Your task to perform on an android device: Open calendar and show me the third week of next month Image 0: 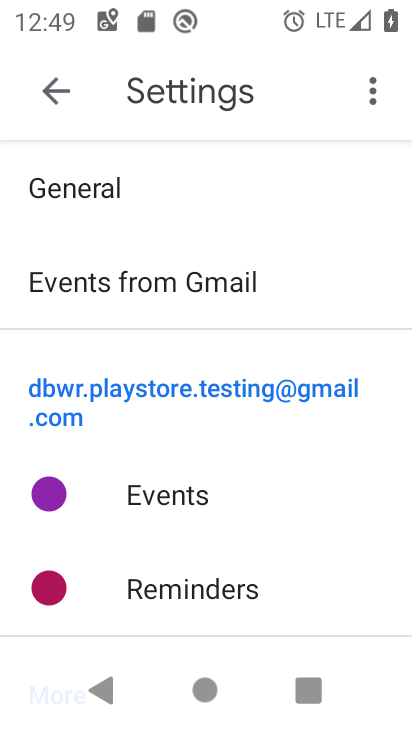
Step 0: type ""
Your task to perform on an android device: Open calendar and show me the third week of next month Image 1: 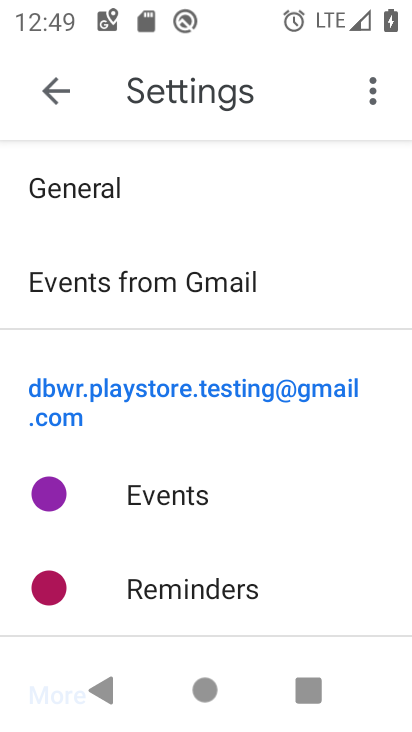
Step 1: press home button
Your task to perform on an android device: Open calendar and show me the third week of next month Image 2: 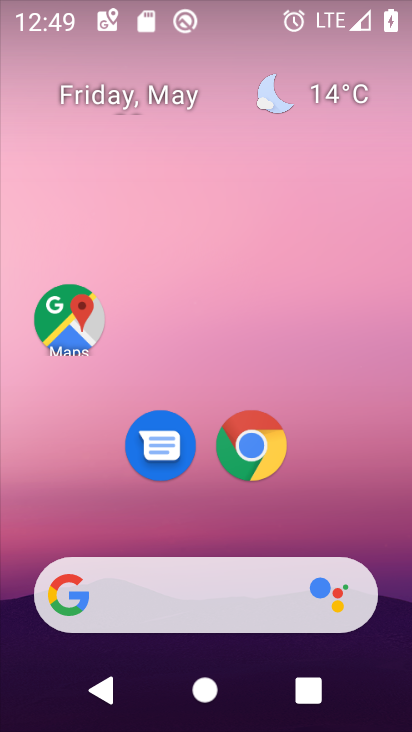
Step 2: drag from (99, 682) to (279, 112)
Your task to perform on an android device: Open calendar and show me the third week of next month Image 3: 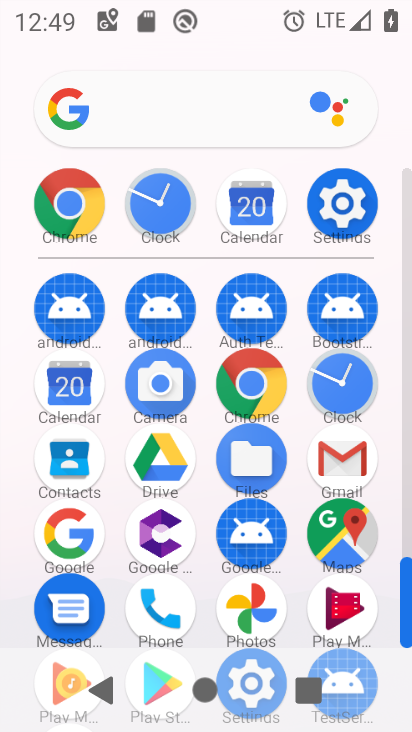
Step 3: click (56, 380)
Your task to perform on an android device: Open calendar and show me the third week of next month Image 4: 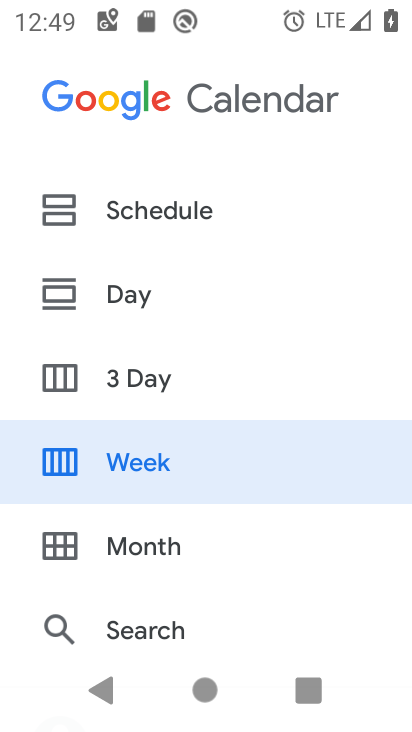
Step 4: press back button
Your task to perform on an android device: Open calendar and show me the third week of next month Image 5: 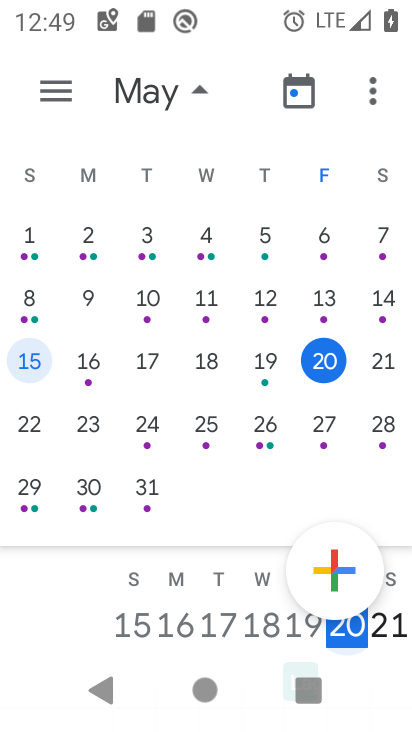
Step 5: drag from (409, 396) to (0, 262)
Your task to perform on an android device: Open calendar and show me the third week of next month Image 6: 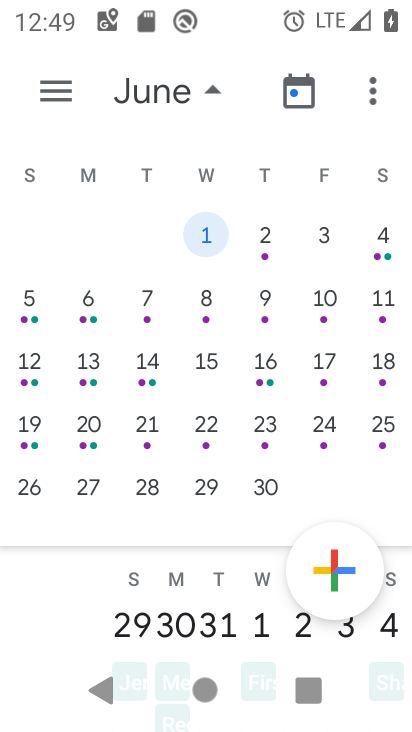
Step 6: click (199, 310)
Your task to perform on an android device: Open calendar and show me the third week of next month Image 7: 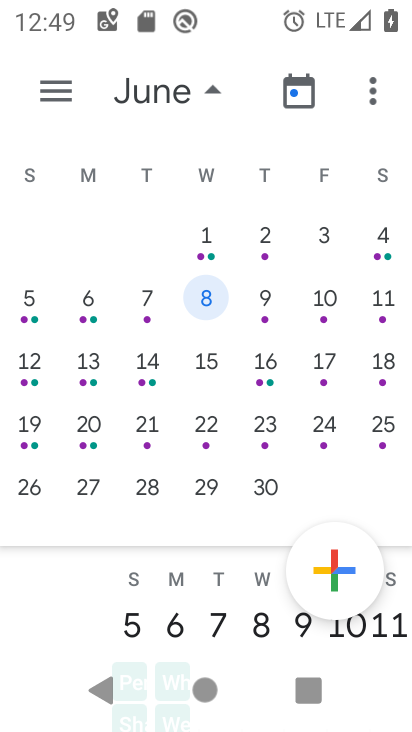
Step 7: click (198, 364)
Your task to perform on an android device: Open calendar and show me the third week of next month Image 8: 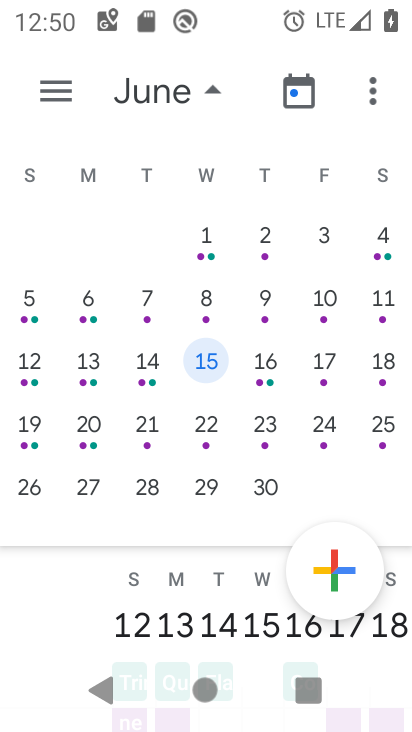
Step 8: task complete